Your task to perform on an android device: Open Youtube and go to the subscriptions tab Image 0: 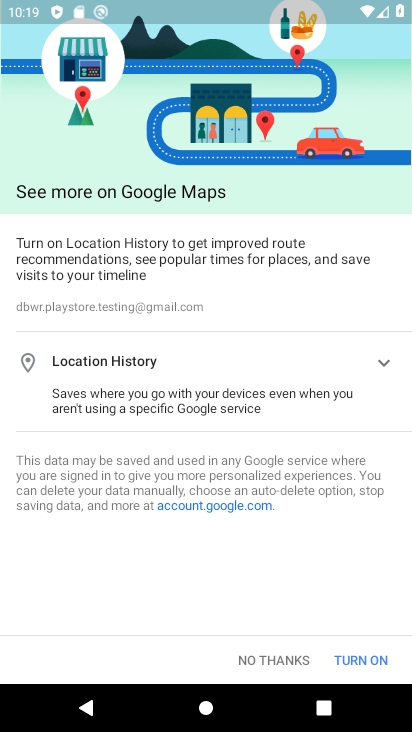
Step 0: press home button
Your task to perform on an android device: Open Youtube and go to the subscriptions tab Image 1: 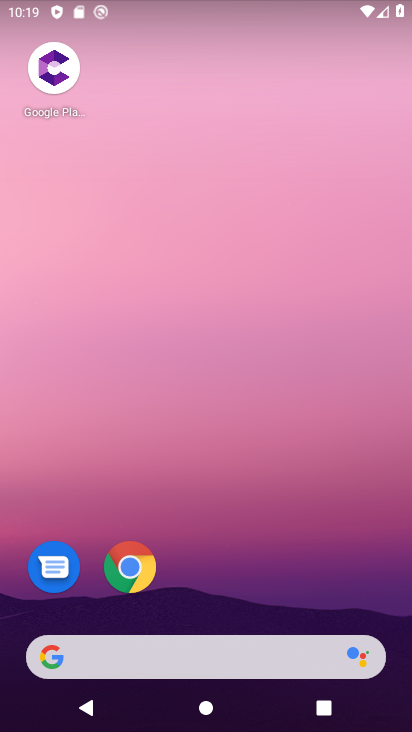
Step 1: drag from (349, 612) to (333, 1)
Your task to perform on an android device: Open Youtube and go to the subscriptions tab Image 2: 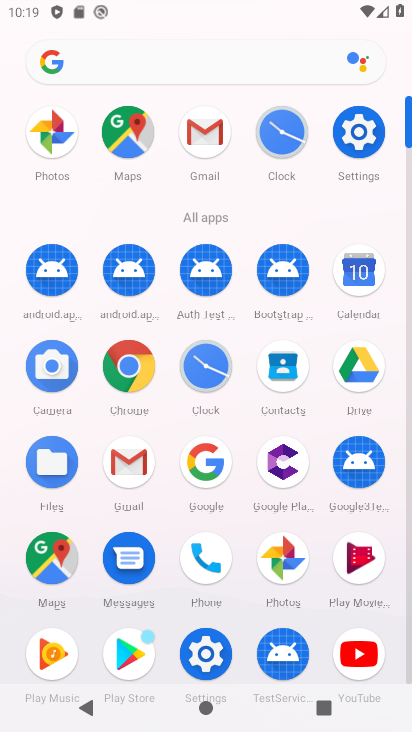
Step 2: click (361, 654)
Your task to perform on an android device: Open Youtube and go to the subscriptions tab Image 3: 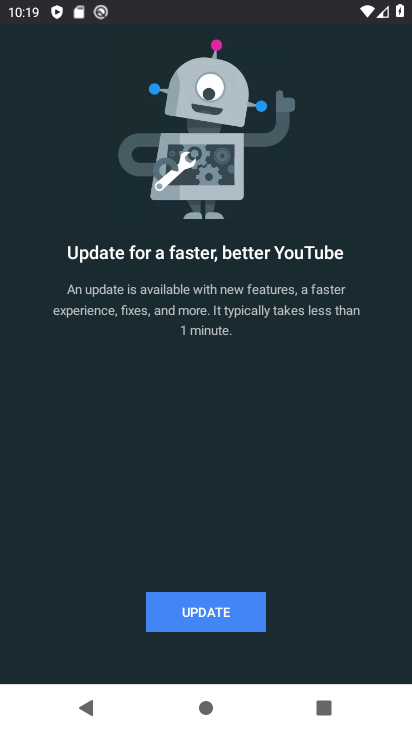
Step 3: click (216, 629)
Your task to perform on an android device: Open Youtube and go to the subscriptions tab Image 4: 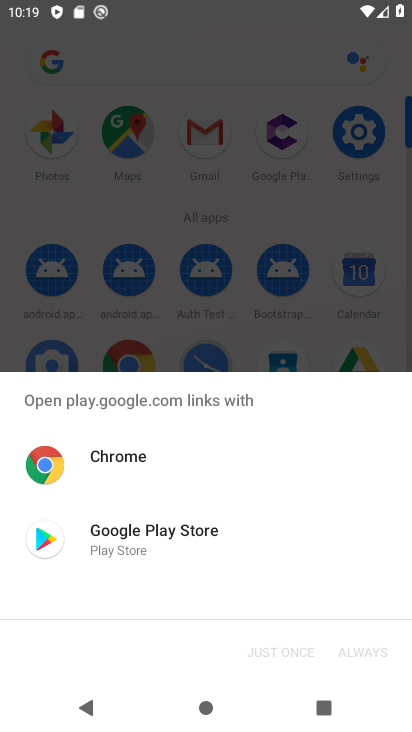
Step 4: click (123, 543)
Your task to perform on an android device: Open Youtube and go to the subscriptions tab Image 5: 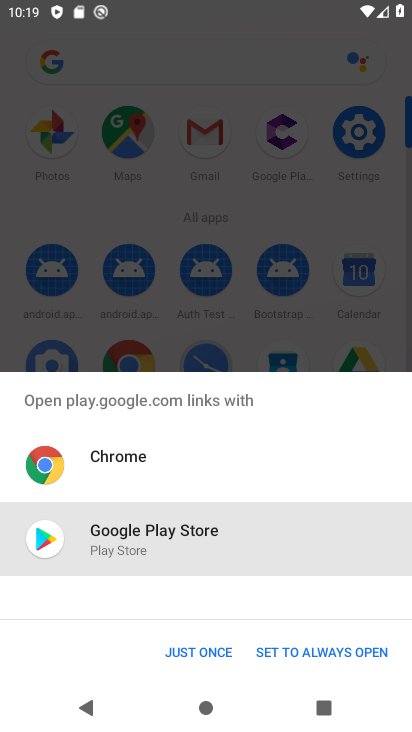
Step 5: click (195, 656)
Your task to perform on an android device: Open Youtube and go to the subscriptions tab Image 6: 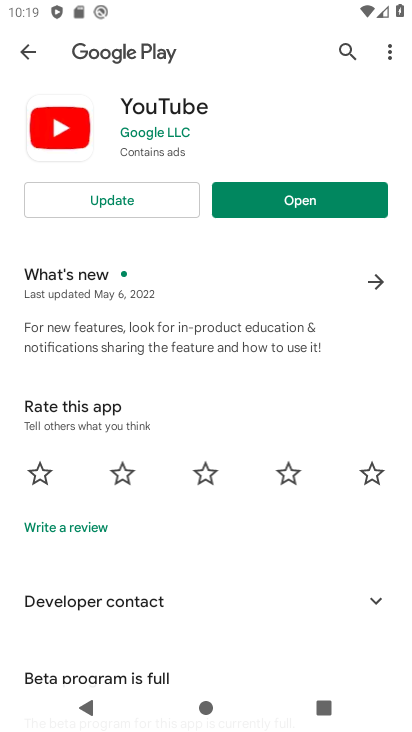
Step 6: click (273, 192)
Your task to perform on an android device: Open Youtube and go to the subscriptions tab Image 7: 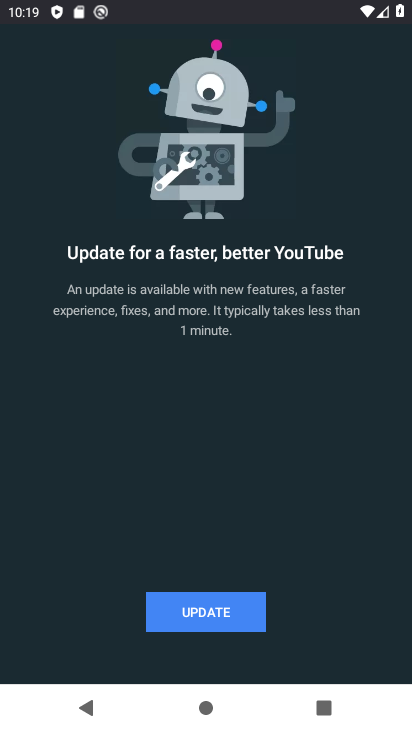
Step 7: click (177, 620)
Your task to perform on an android device: Open Youtube and go to the subscriptions tab Image 8: 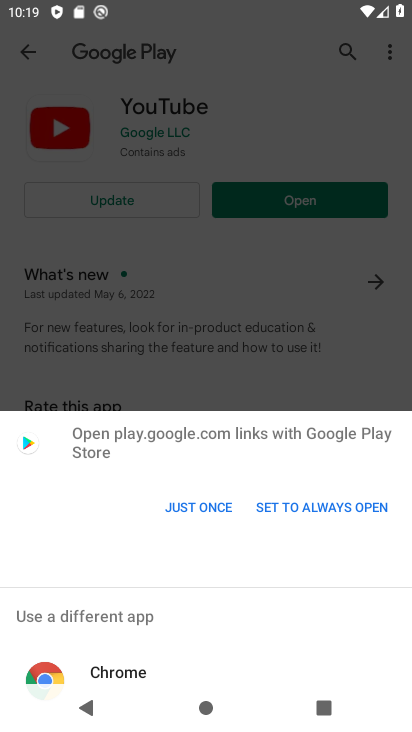
Step 8: click (195, 500)
Your task to perform on an android device: Open Youtube and go to the subscriptions tab Image 9: 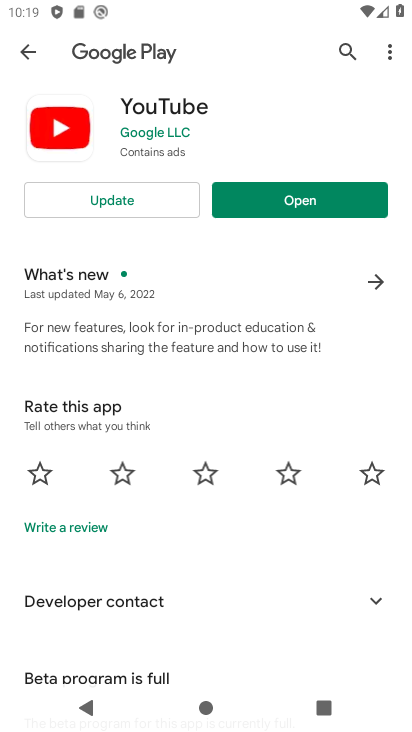
Step 9: click (107, 215)
Your task to perform on an android device: Open Youtube and go to the subscriptions tab Image 10: 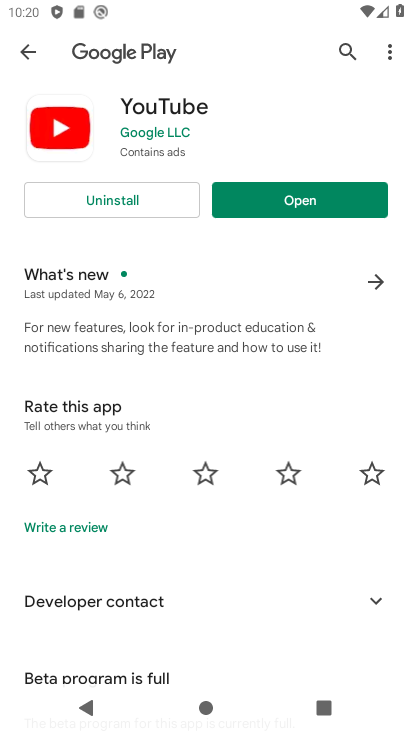
Step 10: click (252, 207)
Your task to perform on an android device: Open Youtube and go to the subscriptions tab Image 11: 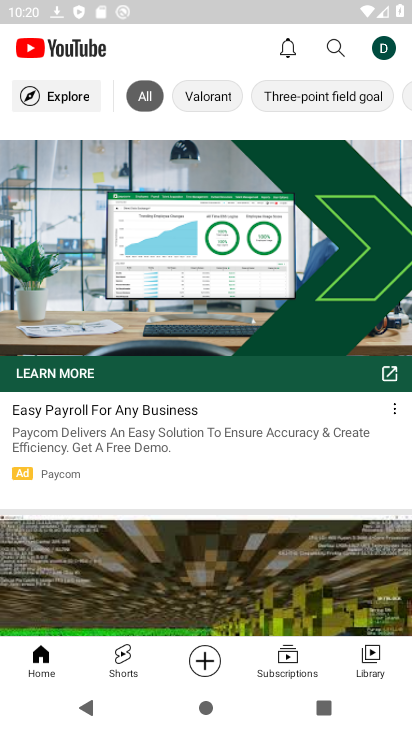
Step 11: click (286, 656)
Your task to perform on an android device: Open Youtube and go to the subscriptions tab Image 12: 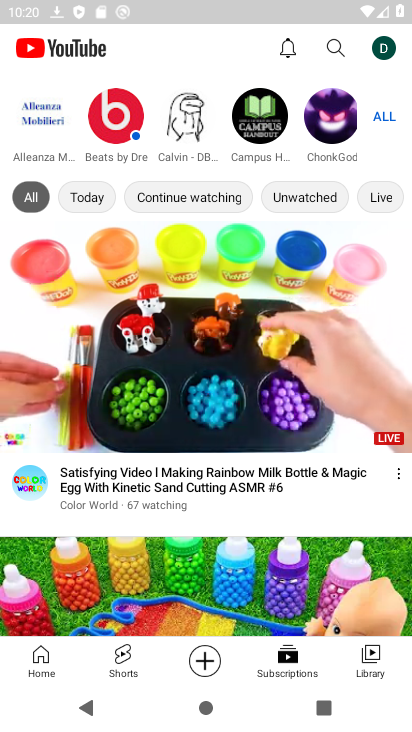
Step 12: task complete